Your task to perform on an android device: Go to notification settings Image 0: 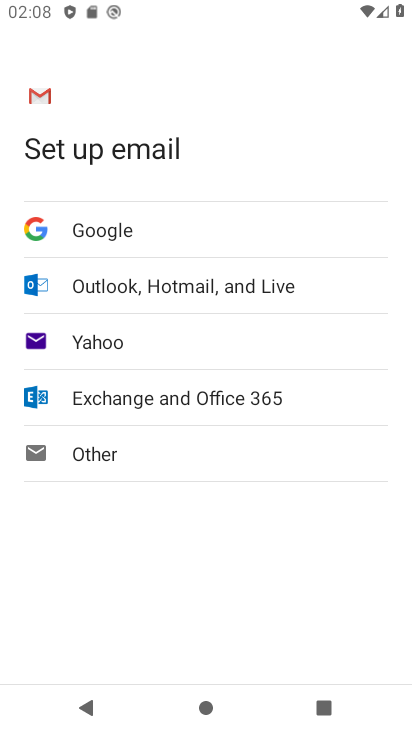
Step 0: press home button
Your task to perform on an android device: Go to notification settings Image 1: 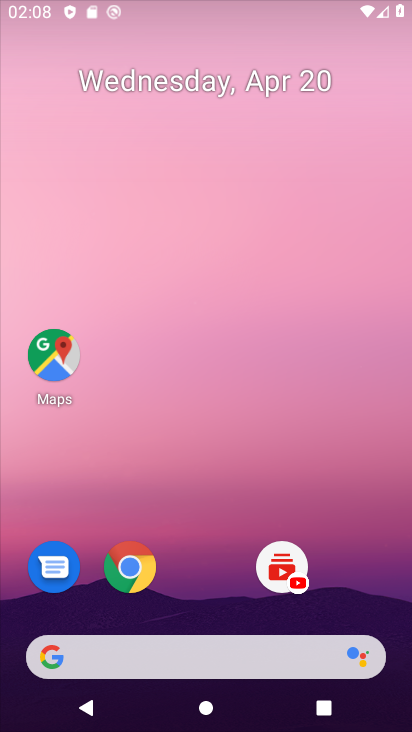
Step 1: drag from (212, 602) to (337, 67)
Your task to perform on an android device: Go to notification settings Image 2: 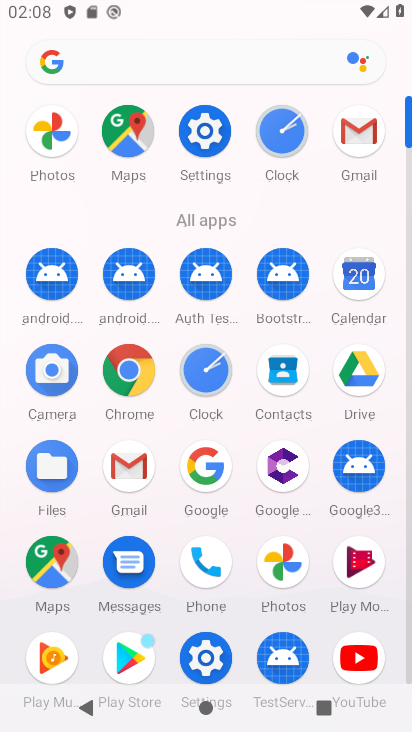
Step 2: drag from (231, 590) to (301, 178)
Your task to perform on an android device: Go to notification settings Image 3: 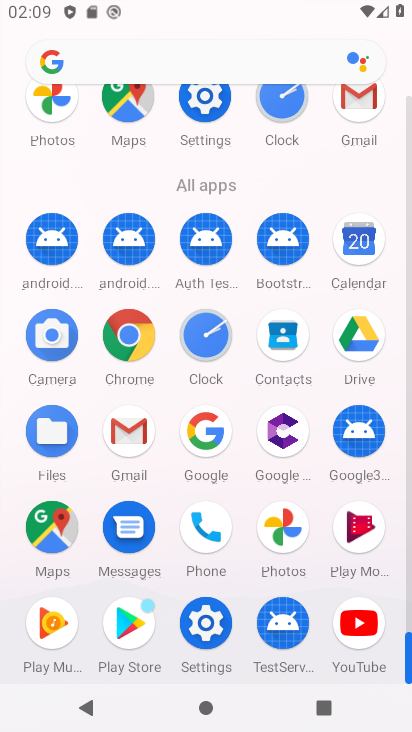
Step 3: click (206, 625)
Your task to perform on an android device: Go to notification settings Image 4: 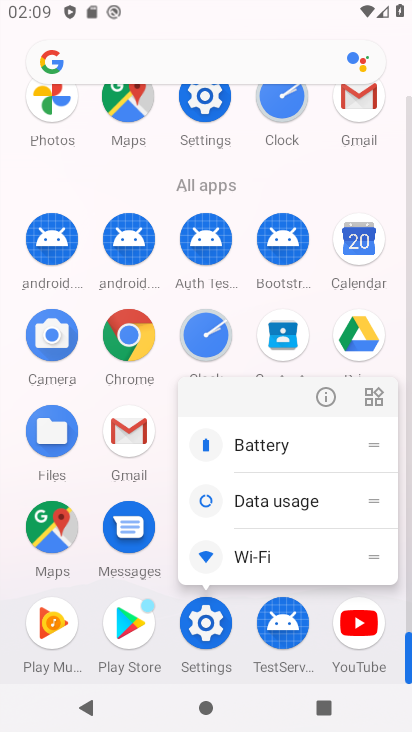
Step 4: click (326, 384)
Your task to perform on an android device: Go to notification settings Image 5: 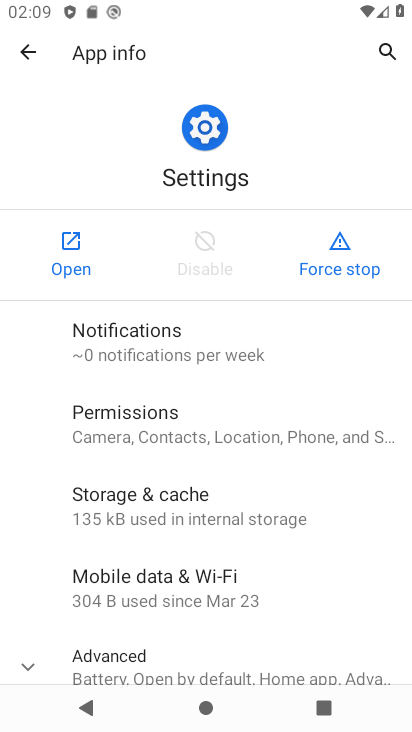
Step 5: click (52, 257)
Your task to perform on an android device: Go to notification settings Image 6: 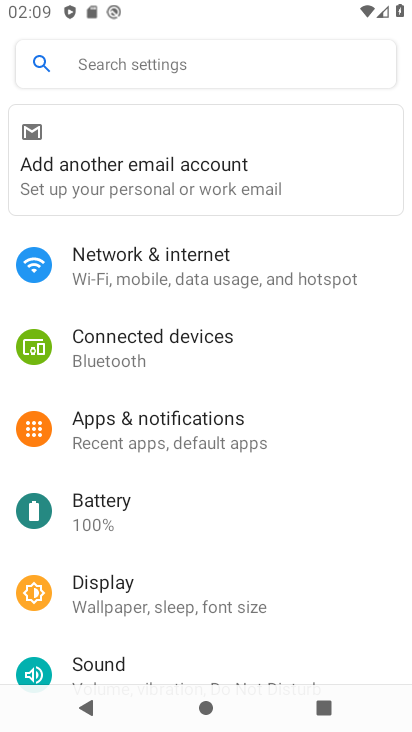
Step 6: click (206, 416)
Your task to perform on an android device: Go to notification settings Image 7: 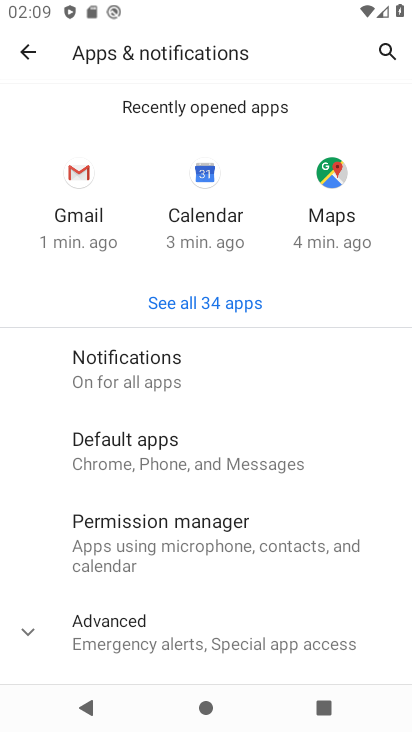
Step 7: click (239, 360)
Your task to perform on an android device: Go to notification settings Image 8: 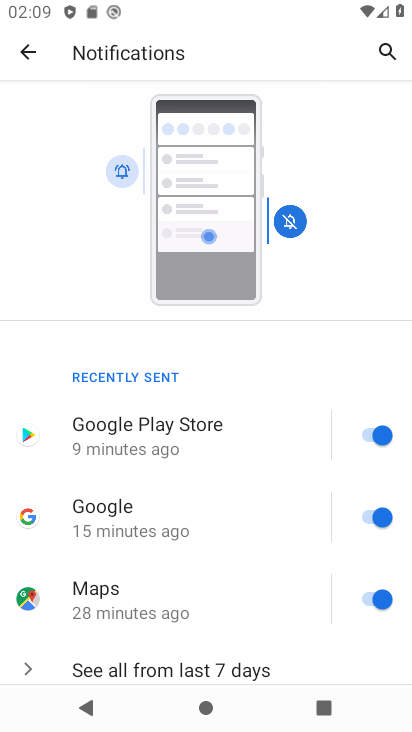
Step 8: drag from (213, 548) to (170, 179)
Your task to perform on an android device: Go to notification settings Image 9: 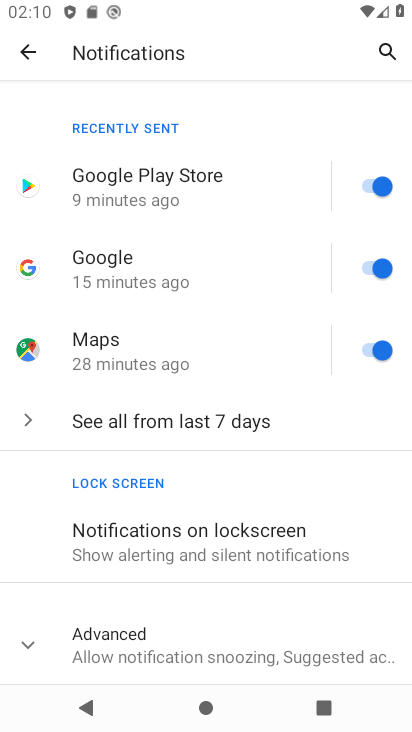
Step 9: drag from (269, 586) to (256, 392)
Your task to perform on an android device: Go to notification settings Image 10: 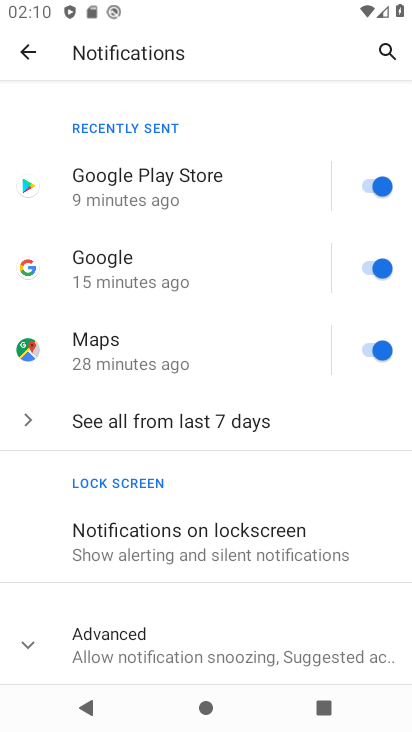
Step 10: click (233, 624)
Your task to perform on an android device: Go to notification settings Image 11: 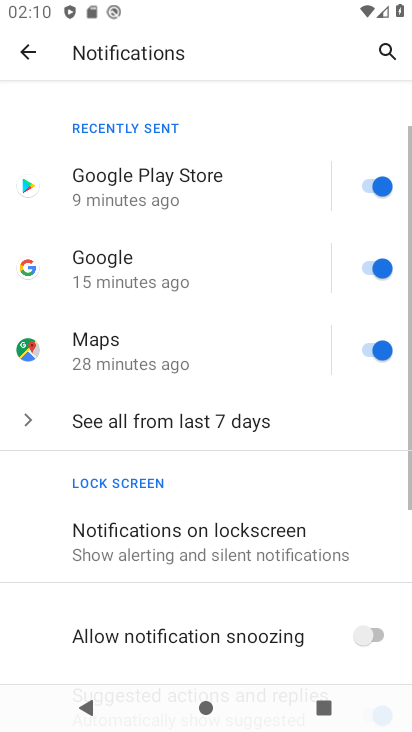
Step 11: drag from (225, 620) to (394, 333)
Your task to perform on an android device: Go to notification settings Image 12: 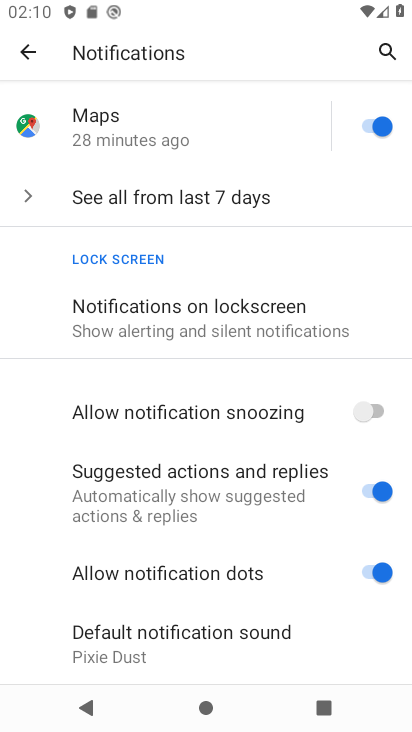
Step 12: click (360, 393)
Your task to perform on an android device: Go to notification settings Image 13: 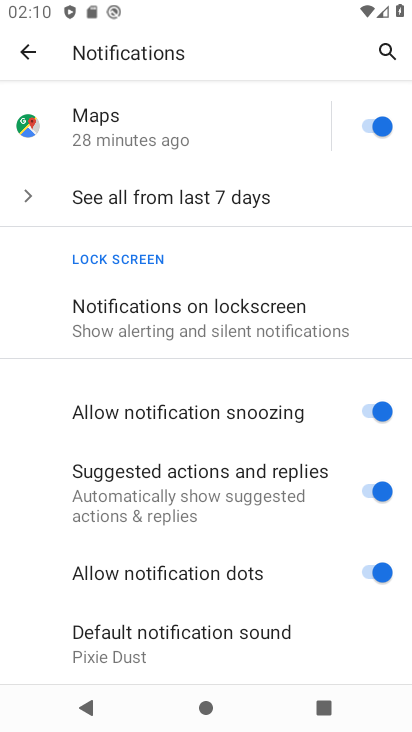
Step 13: task complete